Your task to perform on an android device: turn on bluetooth scan Image 0: 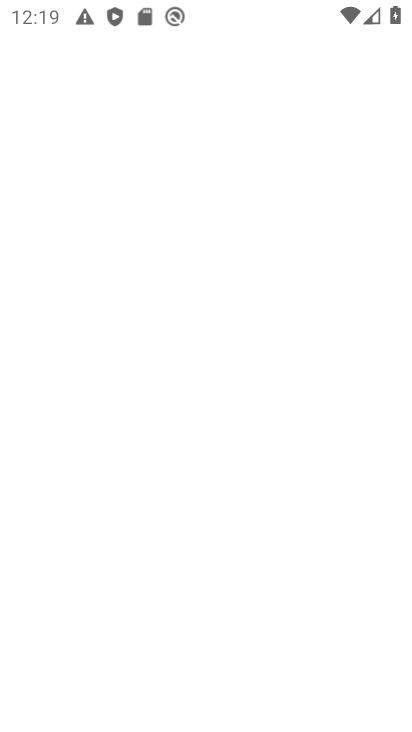
Step 0: drag from (182, 617) to (226, 226)
Your task to perform on an android device: turn on bluetooth scan Image 1: 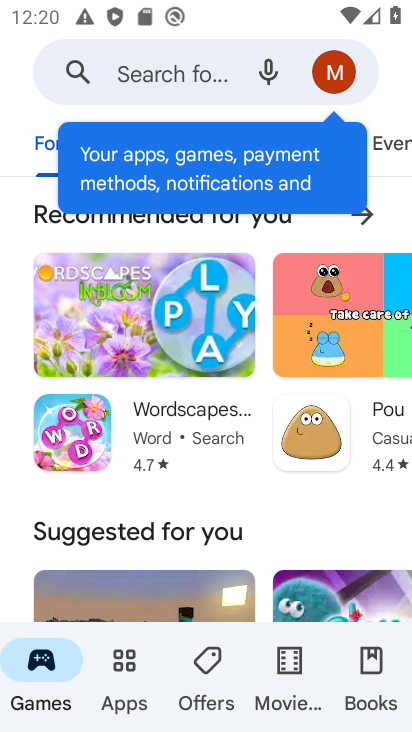
Step 1: press home button
Your task to perform on an android device: turn on bluetooth scan Image 2: 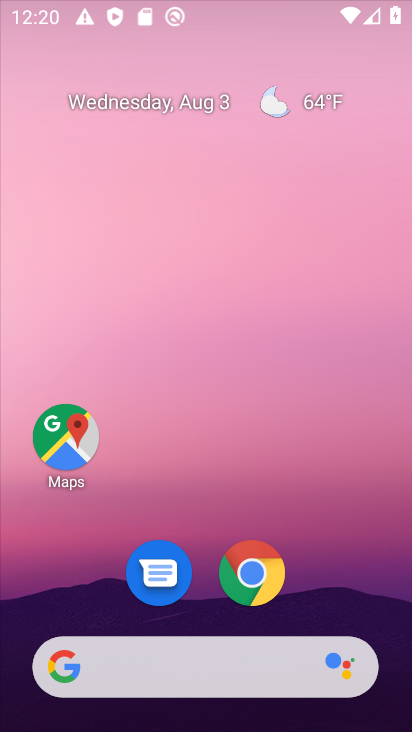
Step 2: drag from (249, 621) to (204, 124)
Your task to perform on an android device: turn on bluetooth scan Image 3: 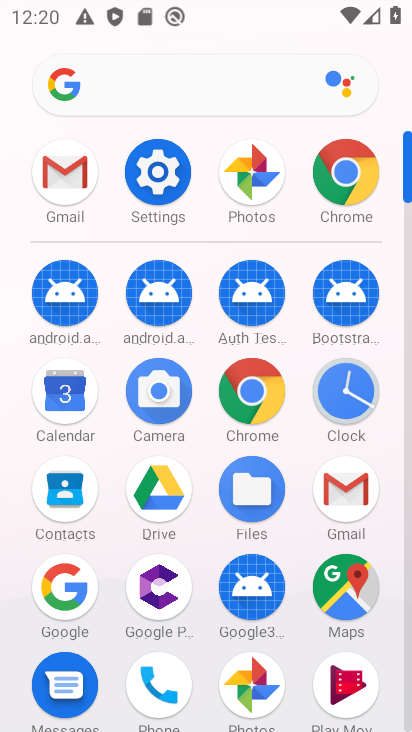
Step 3: click (169, 193)
Your task to perform on an android device: turn on bluetooth scan Image 4: 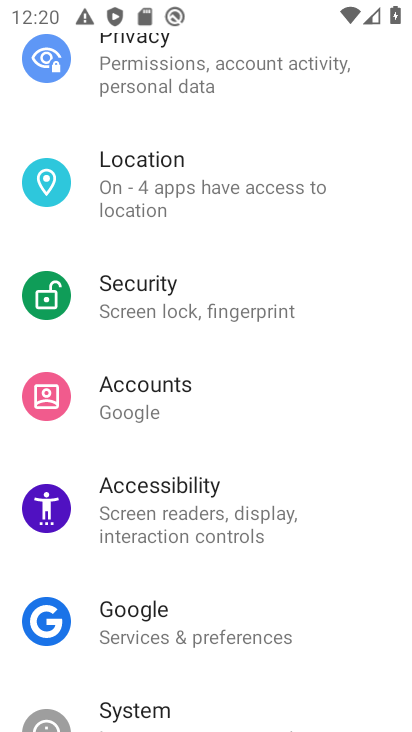
Step 4: drag from (197, 316) to (104, 695)
Your task to perform on an android device: turn on bluetooth scan Image 5: 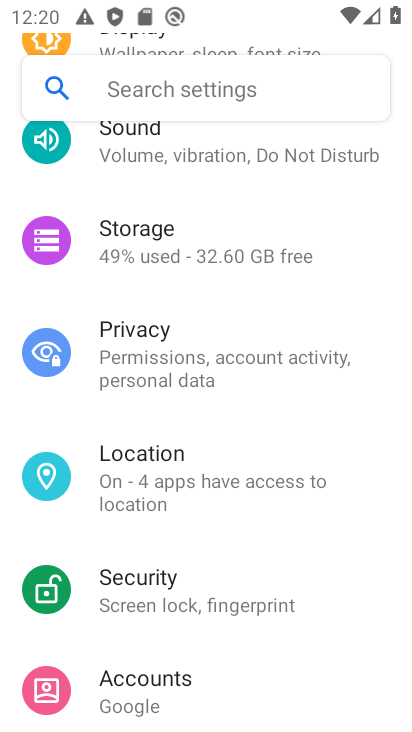
Step 5: drag from (164, 246) to (133, 723)
Your task to perform on an android device: turn on bluetooth scan Image 6: 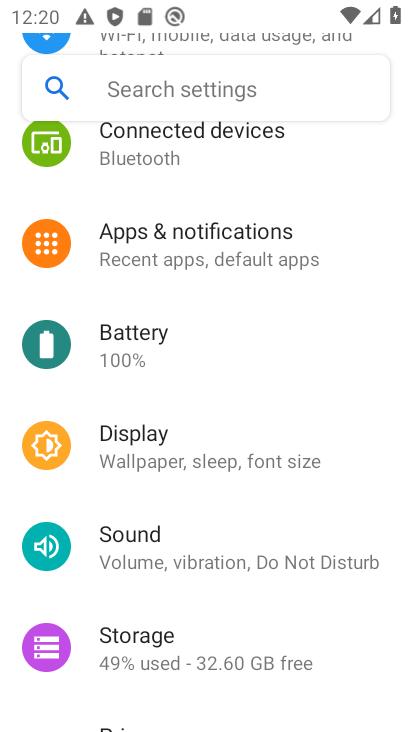
Step 6: drag from (187, 218) to (197, 684)
Your task to perform on an android device: turn on bluetooth scan Image 7: 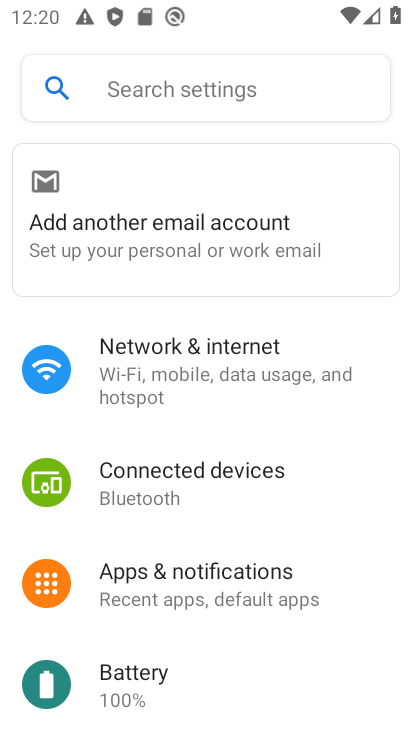
Step 7: click (254, 478)
Your task to perform on an android device: turn on bluetooth scan Image 8: 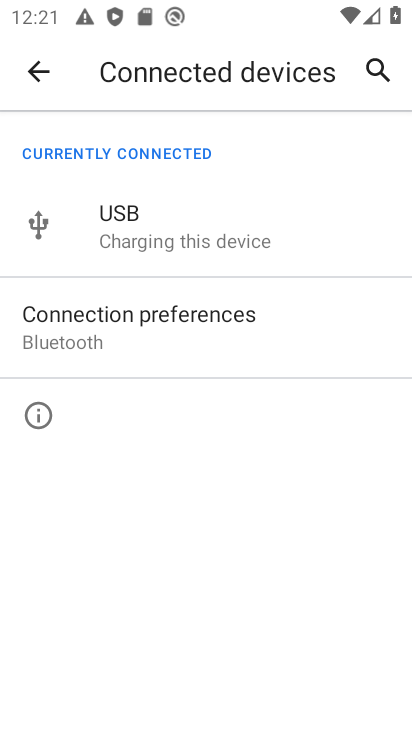
Step 8: click (183, 336)
Your task to perform on an android device: turn on bluetooth scan Image 9: 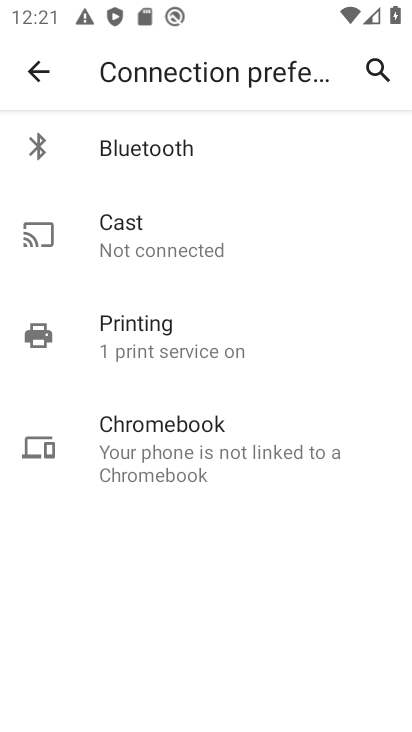
Step 9: click (234, 143)
Your task to perform on an android device: turn on bluetooth scan Image 10: 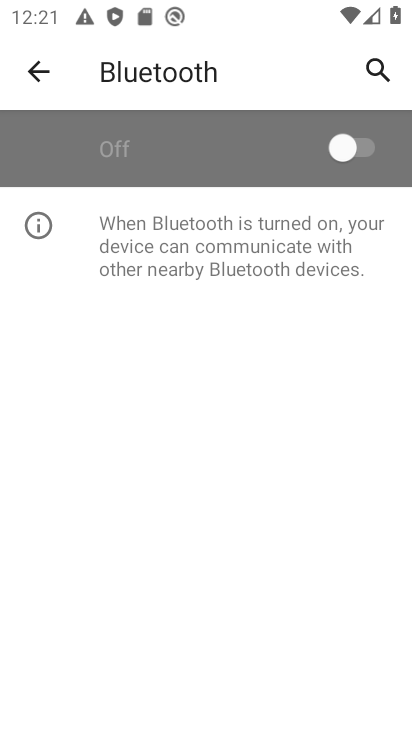
Step 10: click (374, 131)
Your task to perform on an android device: turn on bluetooth scan Image 11: 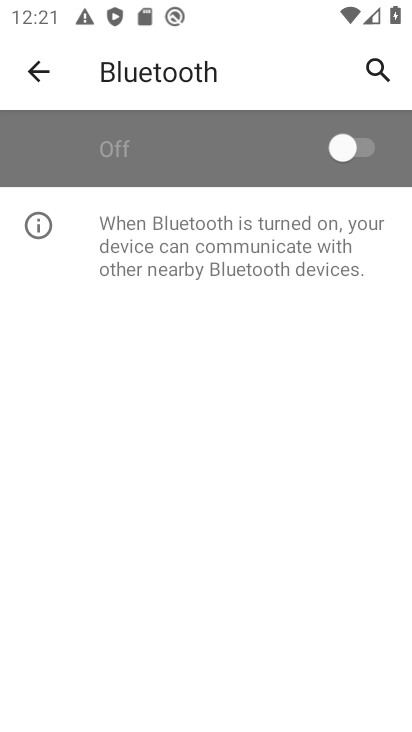
Step 11: click (339, 141)
Your task to perform on an android device: turn on bluetooth scan Image 12: 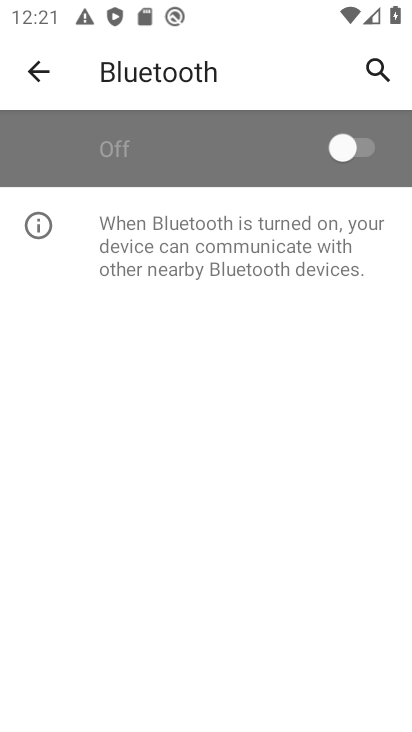
Step 12: click (258, 153)
Your task to perform on an android device: turn on bluetooth scan Image 13: 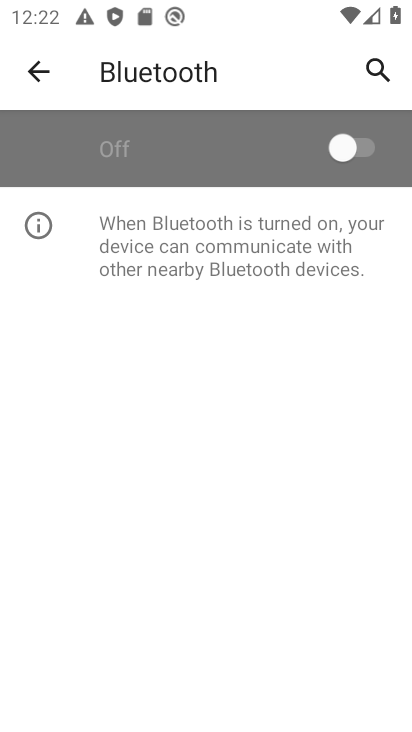
Step 13: task complete